Your task to perform on an android device: Open Amazon Image 0: 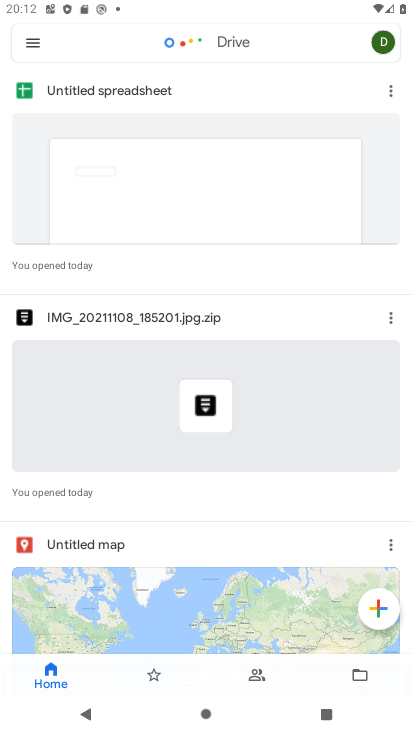
Step 0: press home button
Your task to perform on an android device: Open Amazon Image 1: 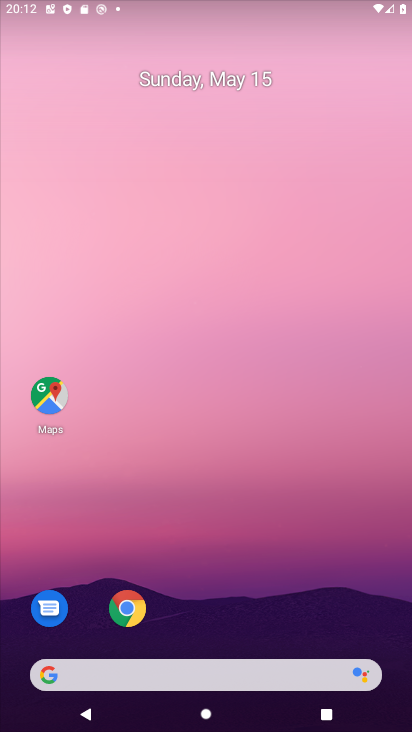
Step 1: drag from (211, 620) to (232, 151)
Your task to perform on an android device: Open Amazon Image 2: 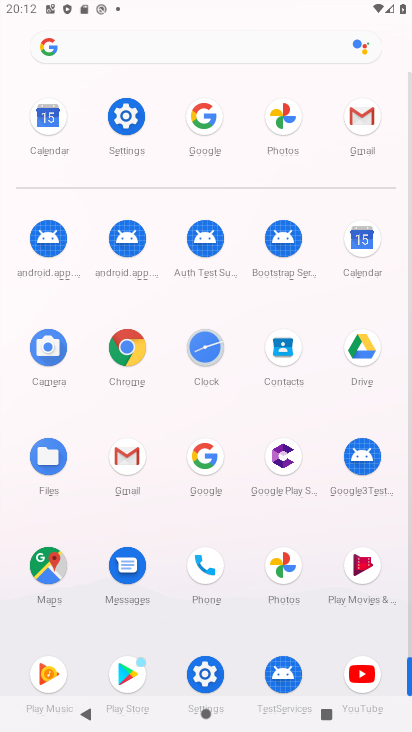
Step 2: click (126, 347)
Your task to perform on an android device: Open Amazon Image 3: 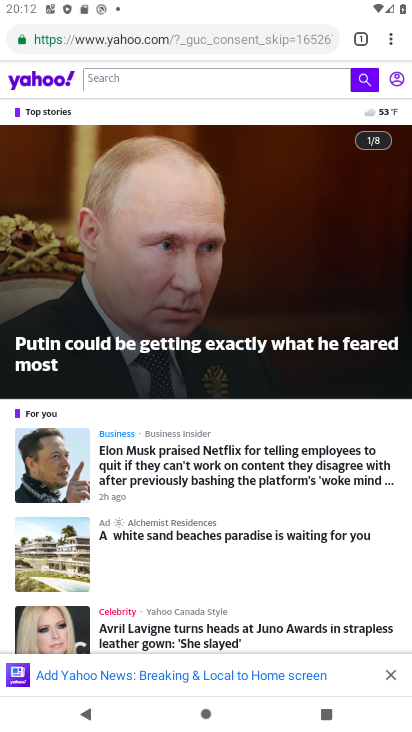
Step 3: press back button
Your task to perform on an android device: Open Amazon Image 4: 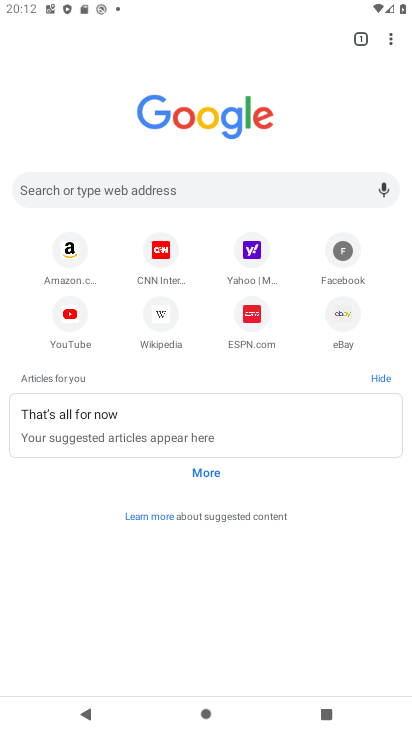
Step 4: click (66, 255)
Your task to perform on an android device: Open Amazon Image 5: 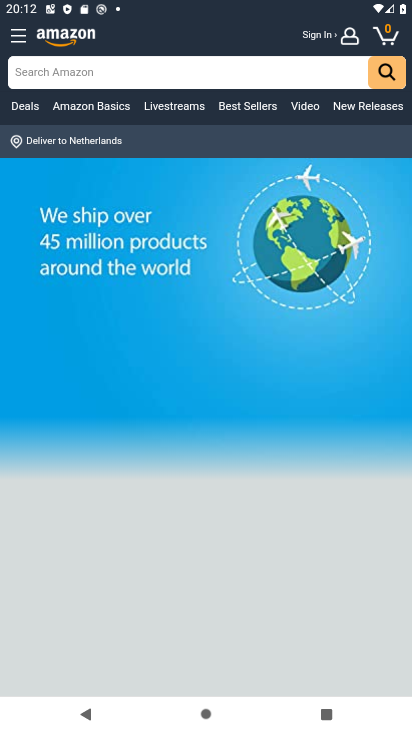
Step 5: task complete